Your task to perform on an android device: Go to CNN.com Image 0: 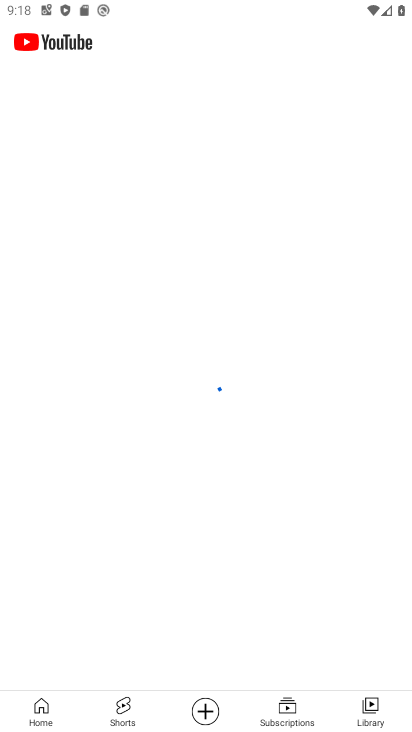
Step 0: drag from (218, 633) to (245, 151)
Your task to perform on an android device: Go to CNN.com Image 1: 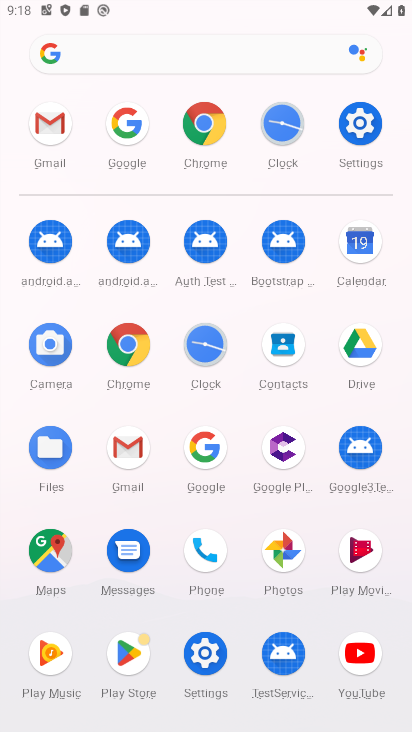
Step 1: click (128, 126)
Your task to perform on an android device: Go to CNN.com Image 2: 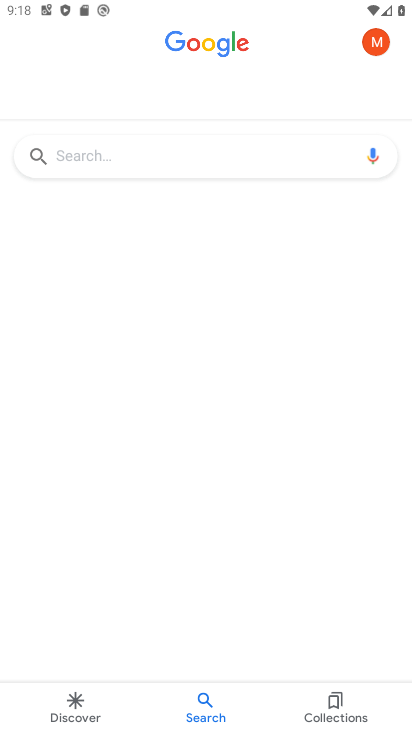
Step 2: click (139, 158)
Your task to perform on an android device: Go to CNN.com Image 3: 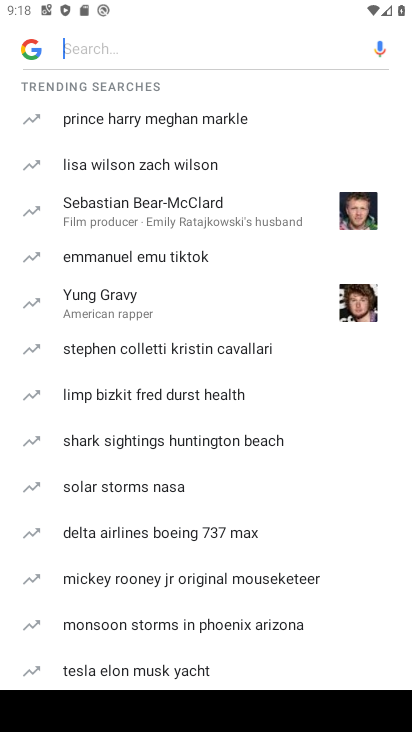
Step 3: type "cnn.com"
Your task to perform on an android device: Go to CNN.com Image 4: 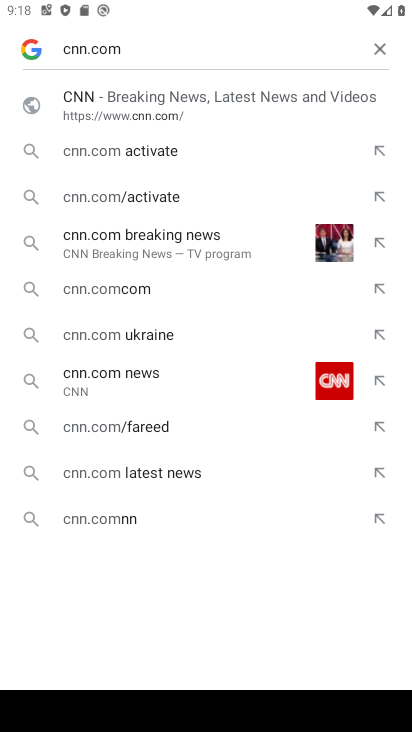
Step 4: click (173, 102)
Your task to perform on an android device: Go to CNN.com Image 5: 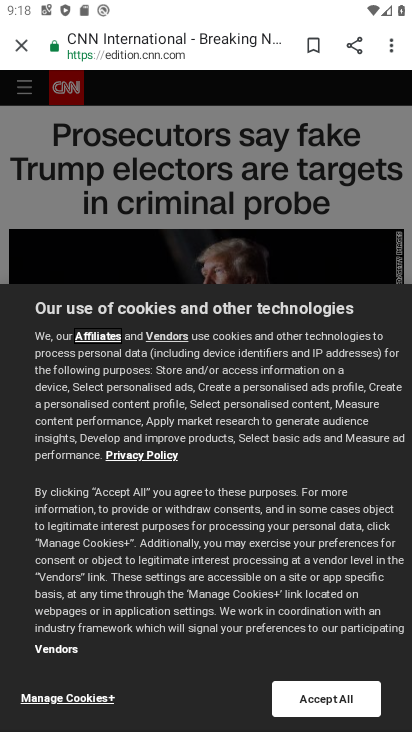
Step 5: task complete